Your task to perform on an android device: Open location settings Image 0: 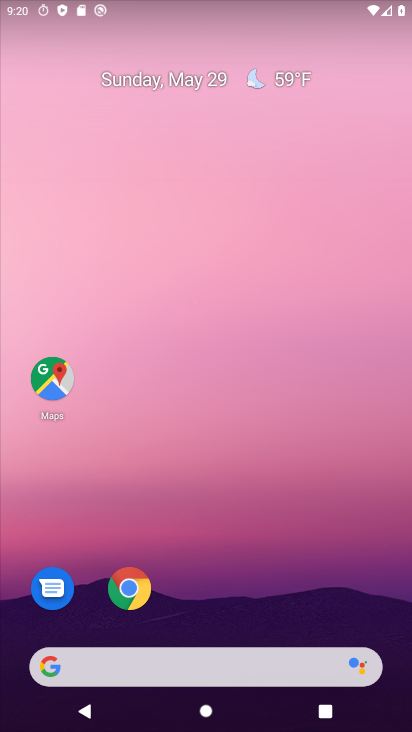
Step 0: drag from (242, 576) to (312, 0)
Your task to perform on an android device: Open location settings Image 1: 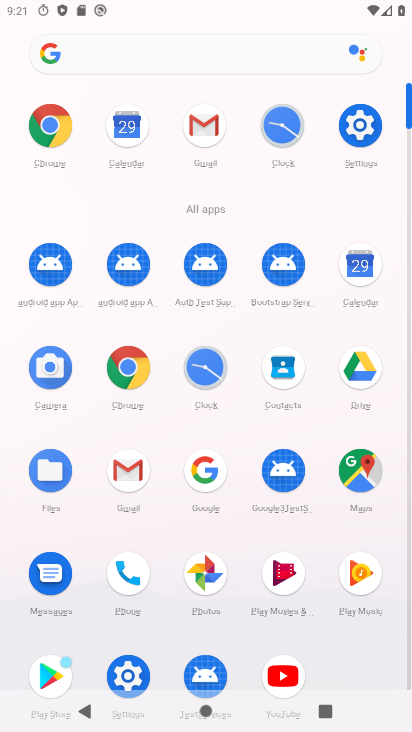
Step 1: click (353, 145)
Your task to perform on an android device: Open location settings Image 2: 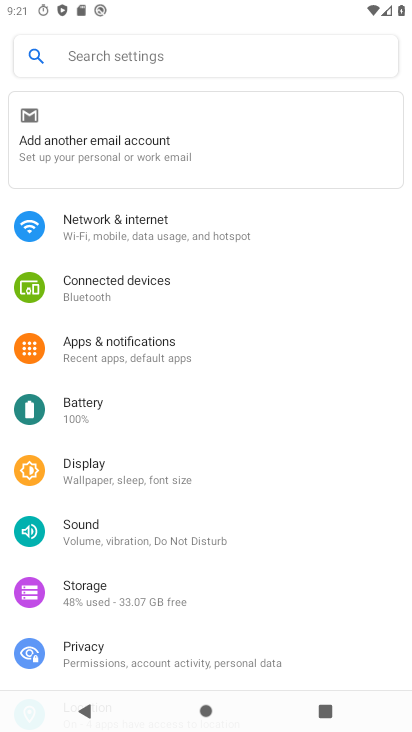
Step 2: drag from (117, 601) to (186, 195)
Your task to perform on an android device: Open location settings Image 3: 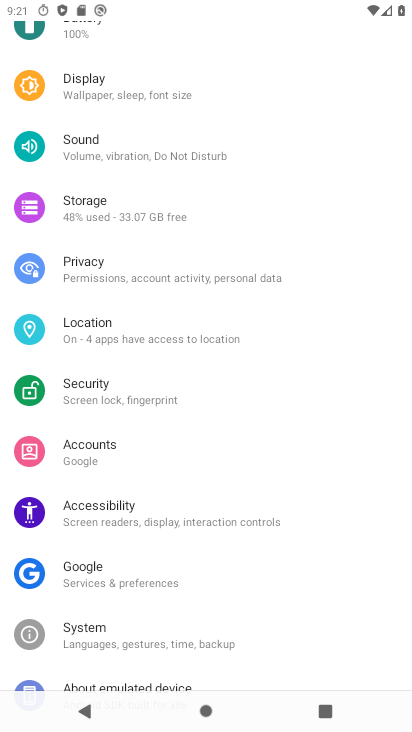
Step 3: click (131, 332)
Your task to perform on an android device: Open location settings Image 4: 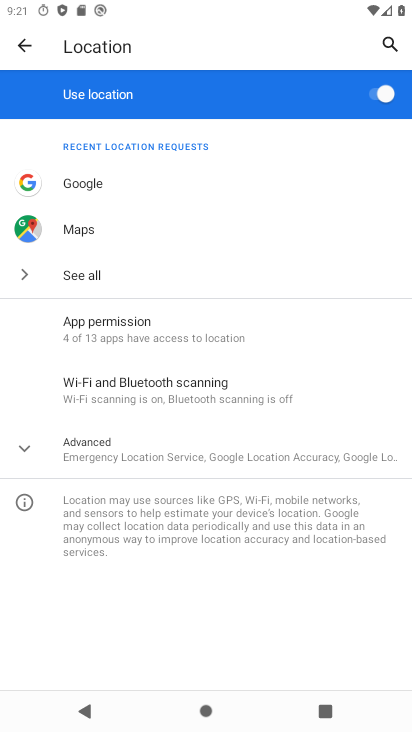
Step 4: task complete